Your task to perform on an android device: Open internet settings Image 0: 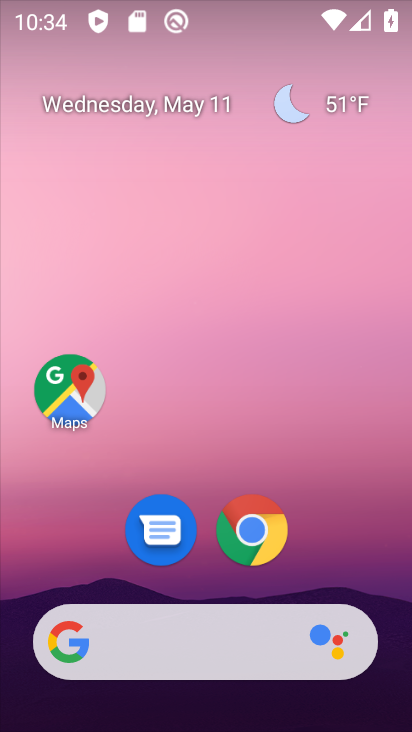
Step 0: drag from (295, 561) to (269, 136)
Your task to perform on an android device: Open internet settings Image 1: 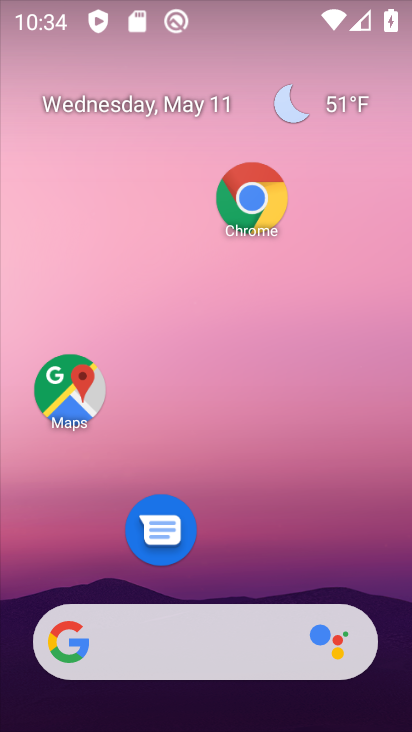
Step 1: drag from (319, 533) to (266, 23)
Your task to perform on an android device: Open internet settings Image 2: 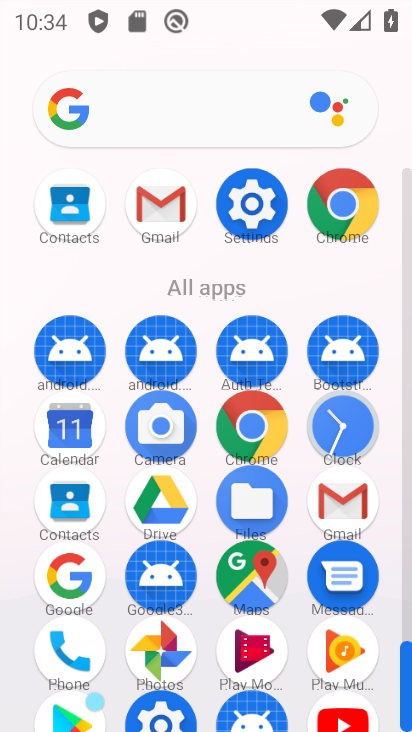
Step 2: click (262, 209)
Your task to perform on an android device: Open internet settings Image 3: 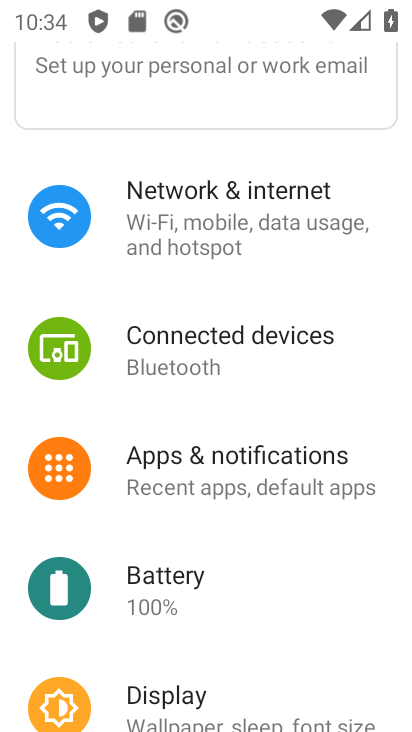
Step 3: click (262, 209)
Your task to perform on an android device: Open internet settings Image 4: 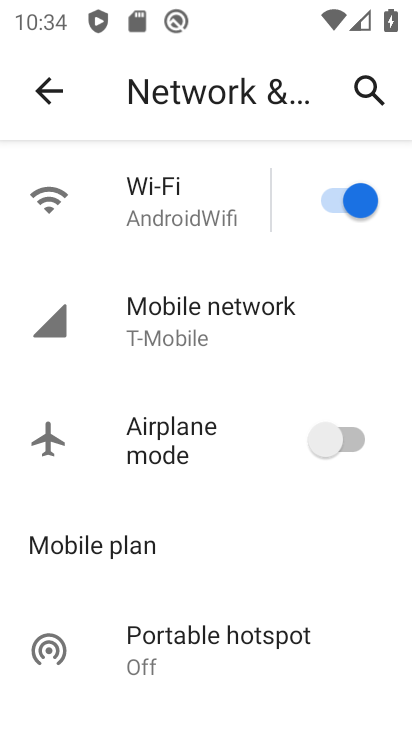
Step 4: task complete